Your task to perform on an android device: find which apps use the phone's location Image 0: 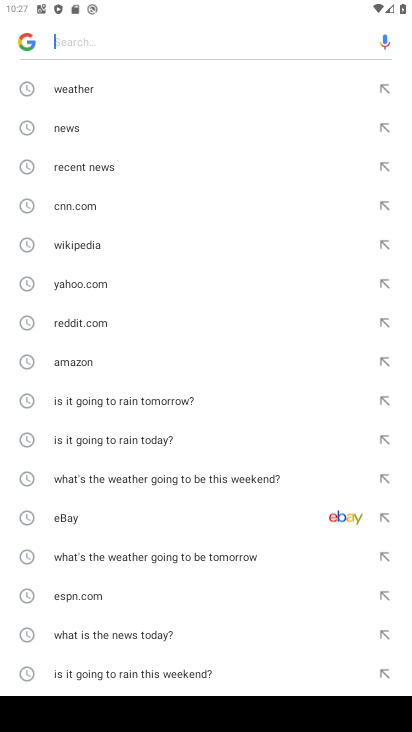
Step 0: press home button
Your task to perform on an android device: find which apps use the phone's location Image 1: 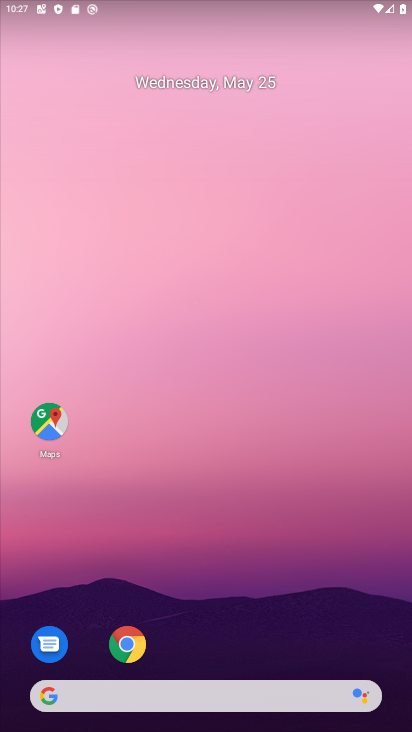
Step 1: drag from (219, 554) to (147, 119)
Your task to perform on an android device: find which apps use the phone's location Image 2: 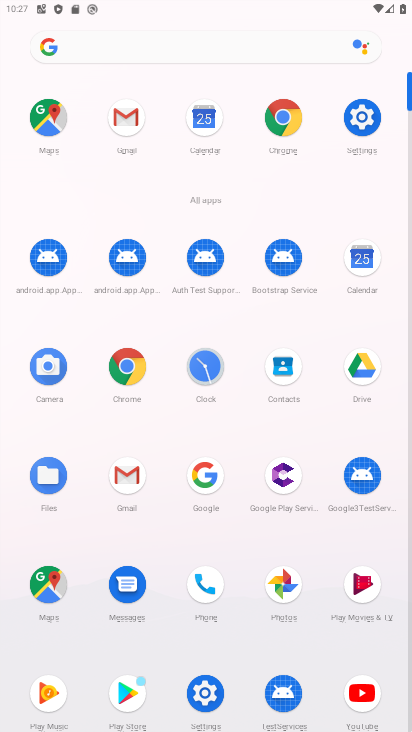
Step 2: click (358, 113)
Your task to perform on an android device: find which apps use the phone's location Image 3: 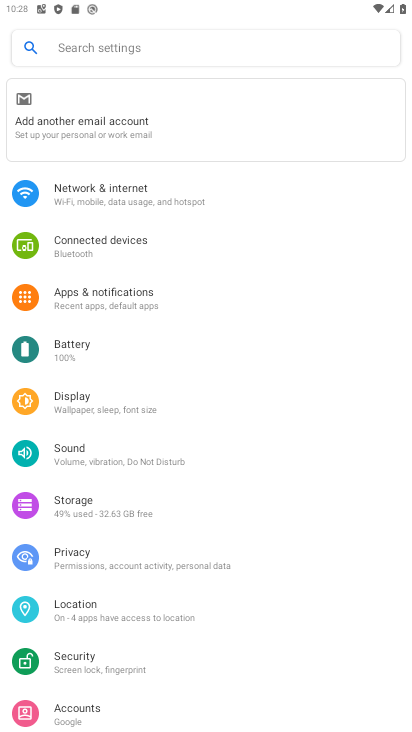
Step 3: click (77, 603)
Your task to perform on an android device: find which apps use the phone's location Image 4: 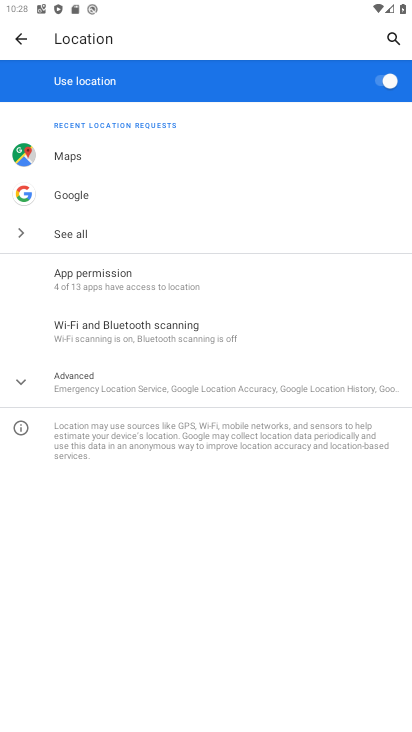
Step 4: click (77, 236)
Your task to perform on an android device: find which apps use the phone's location Image 5: 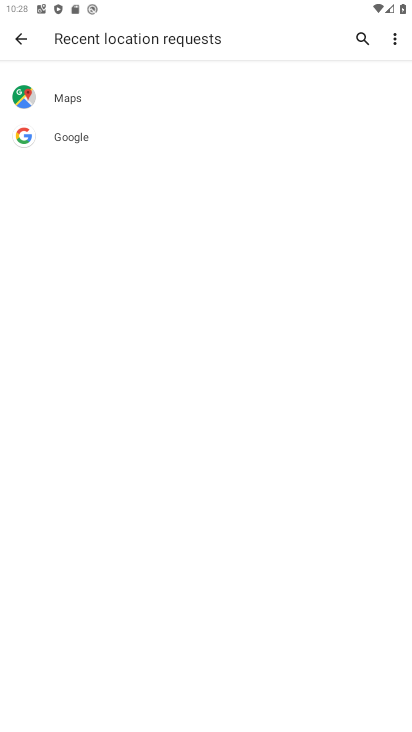
Step 5: task complete